Your task to perform on an android device: Open maps Image 0: 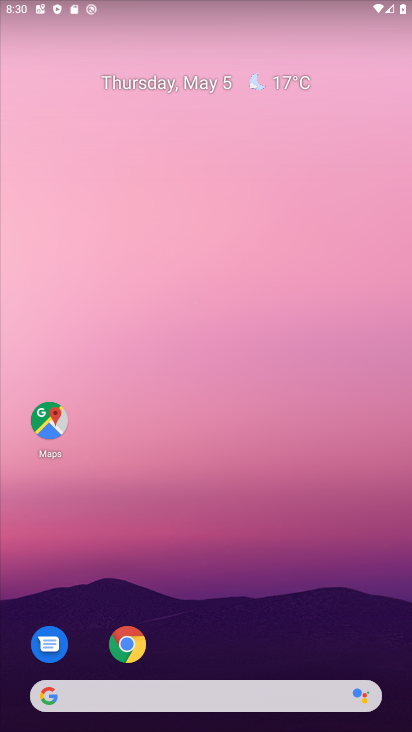
Step 0: click (53, 407)
Your task to perform on an android device: Open maps Image 1: 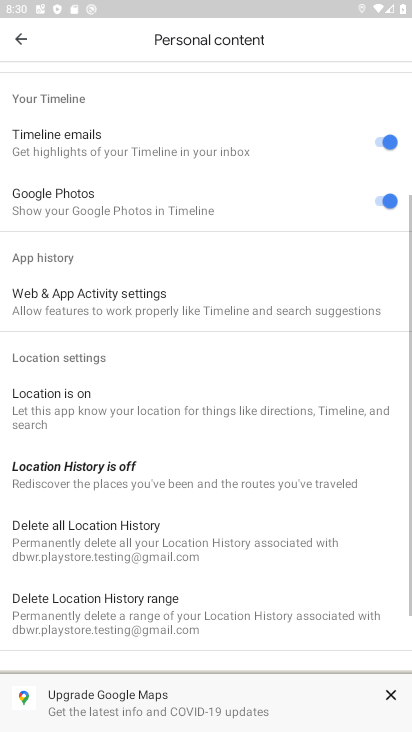
Step 1: task complete